Your task to perform on an android device: Go to Wikipedia Image 0: 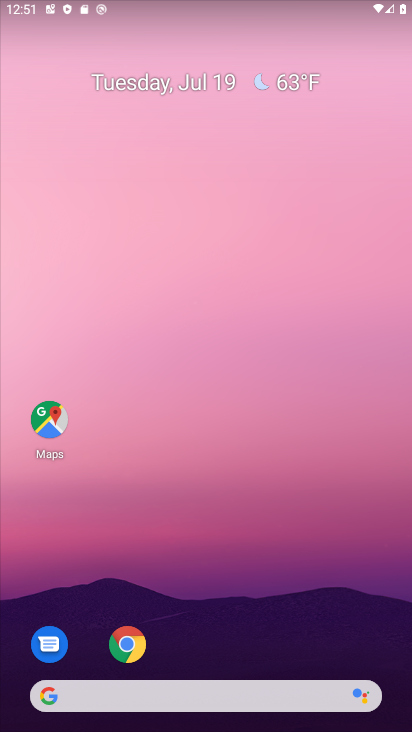
Step 0: click (132, 644)
Your task to perform on an android device: Go to Wikipedia Image 1: 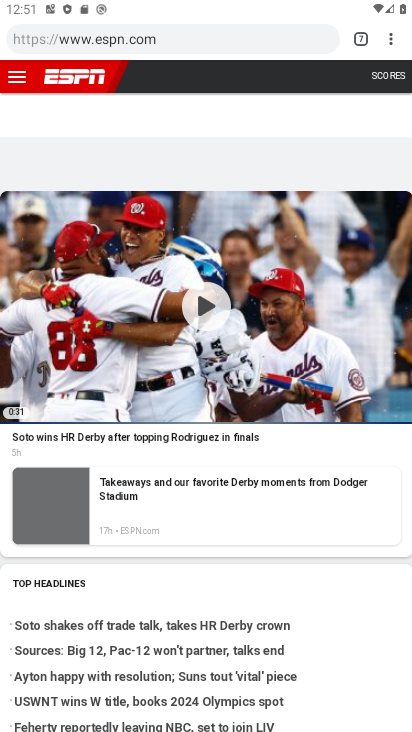
Step 1: click (391, 38)
Your task to perform on an android device: Go to Wikipedia Image 2: 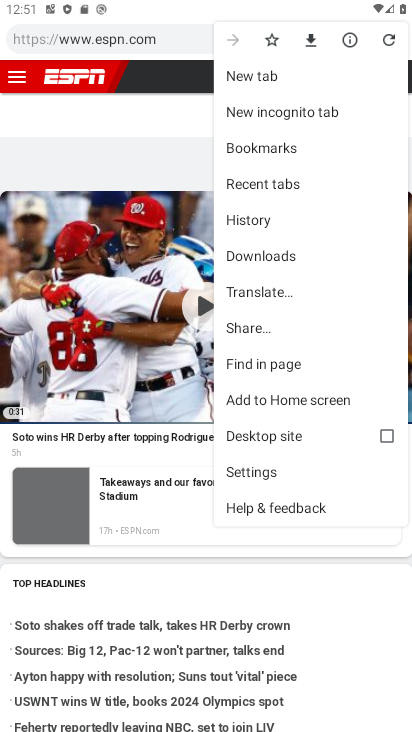
Step 2: click (257, 76)
Your task to perform on an android device: Go to Wikipedia Image 3: 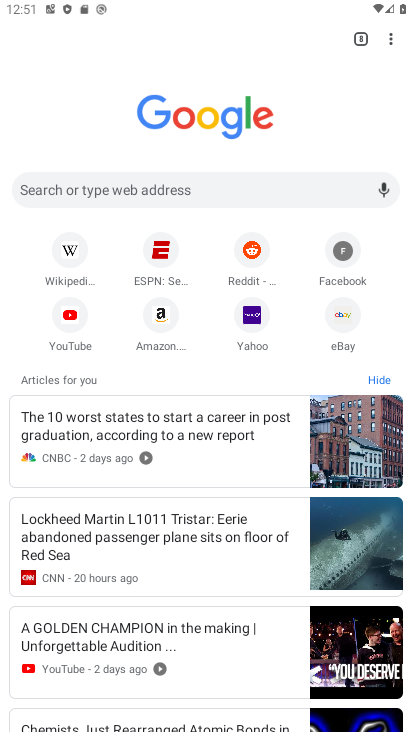
Step 3: click (67, 247)
Your task to perform on an android device: Go to Wikipedia Image 4: 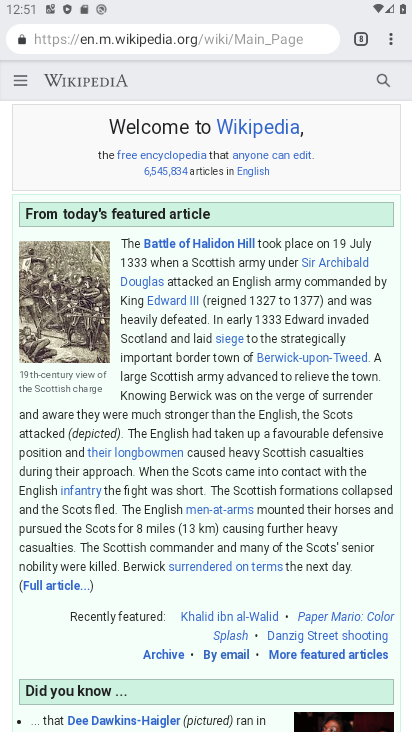
Step 4: click (389, 36)
Your task to perform on an android device: Go to Wikipedia Image 5: 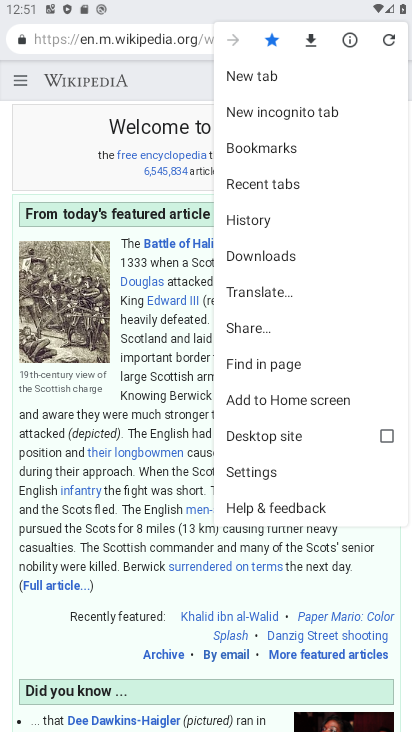
Step 5: click (244, 71)
Your task to perform on an android device: Go to Wikipedia Image 6: 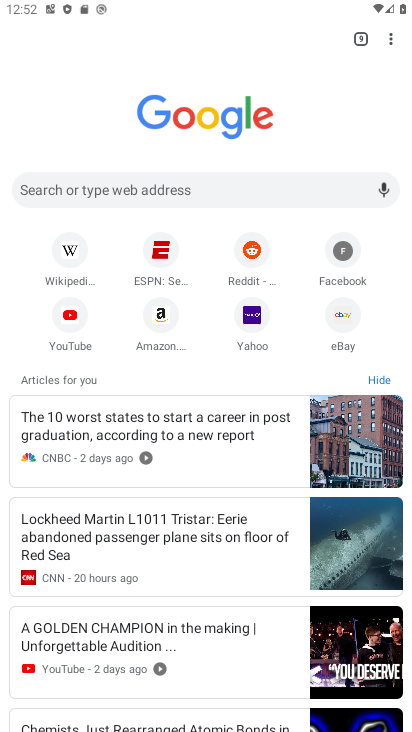
Step 6: click (73, 253)
Your task to perform on an android device: Go to Wikipedia Image 7: 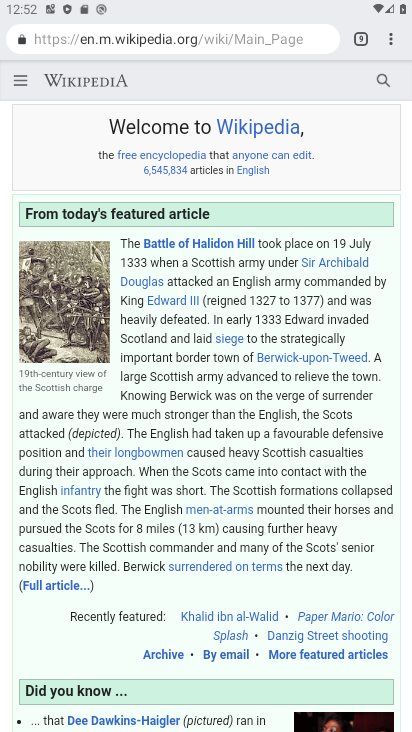
Step 7: task complete